Your task to perform on an android device: move a message to another label in the gmail app Image 0: 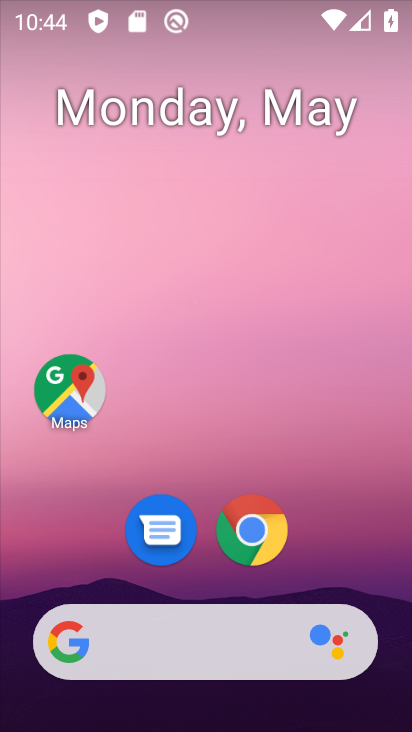
Step 0: drag from (336, 503) to (328, 4)
Your task to perform on an android device: move a message to another label in the gmail app Image 1: 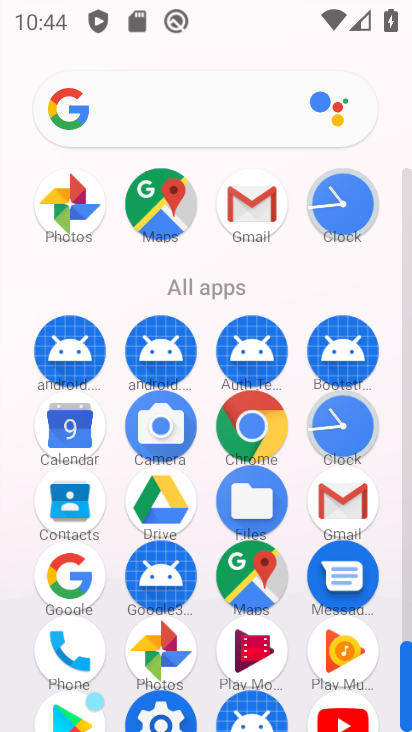
Step 1: drag from (11, 593) to (30, 239)
Your task to perform on an android device: move a message to another label in the gmail app Image 2: 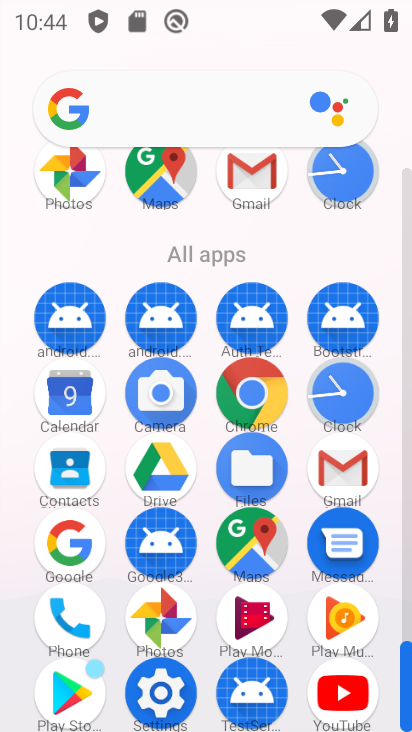
Step 2: drag from (12, 560) to (28, 220)
Your task to perform on an android device: move a message to another label in the gmail app Image 3: 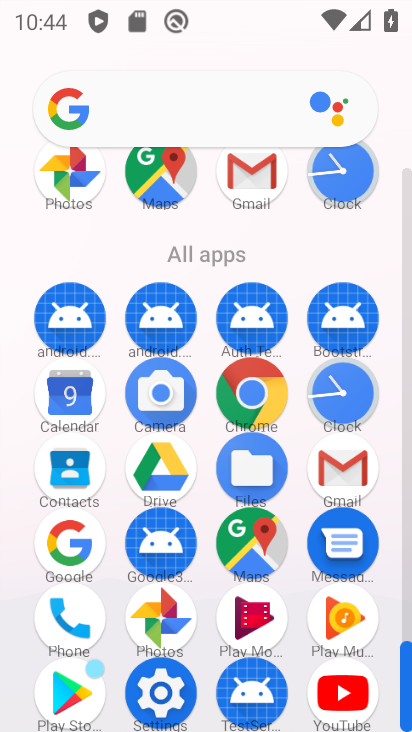
Step 3: click (341, 458)
Your task to perform on an android device: move a message to another label in the gmail app Image 4: 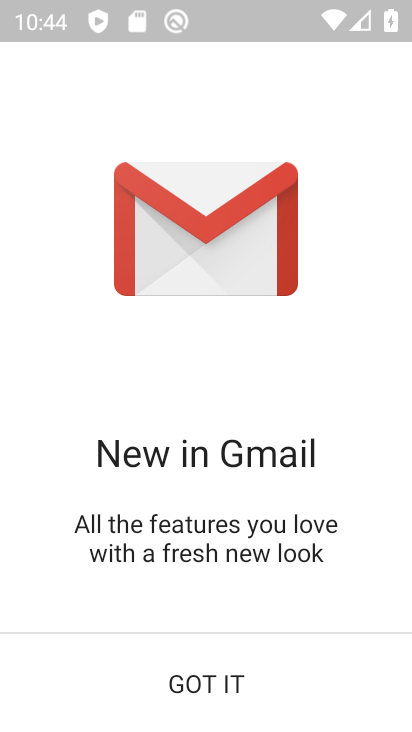
Step 4: click (204, 652)
Your task to perform on an android device: move a message to another label in the gmail app Image 5: 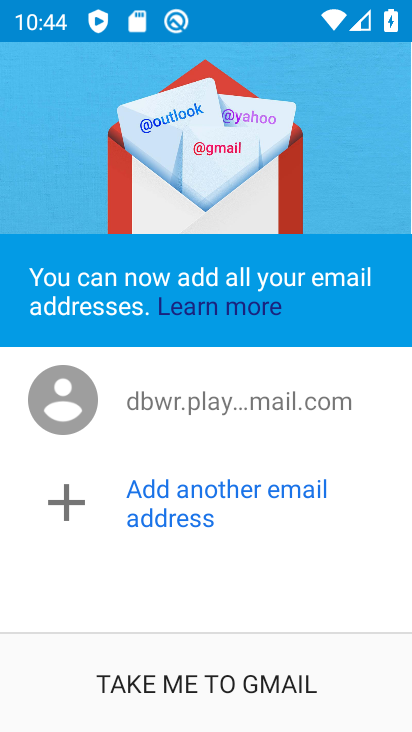
Step 5: click (209, 673)
Your task to perform on an android device: move a message to another label in the gmail app Image 6: 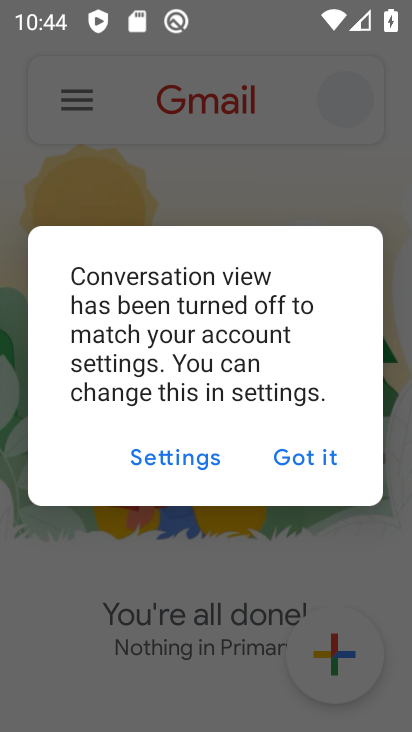
Step 6: click (296, 459)
Your task to perform on an android device: move a message to another label in the gmail app Image 7: 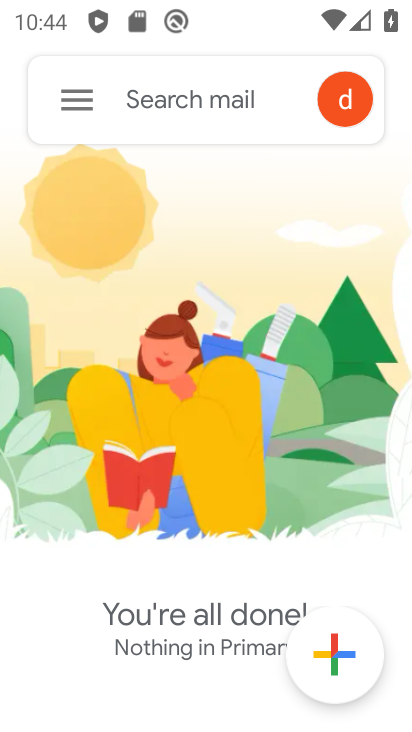
Step 7: click (87, 85)
Your task to perform on an android device: move a message to another label in the gmail app Image 8: 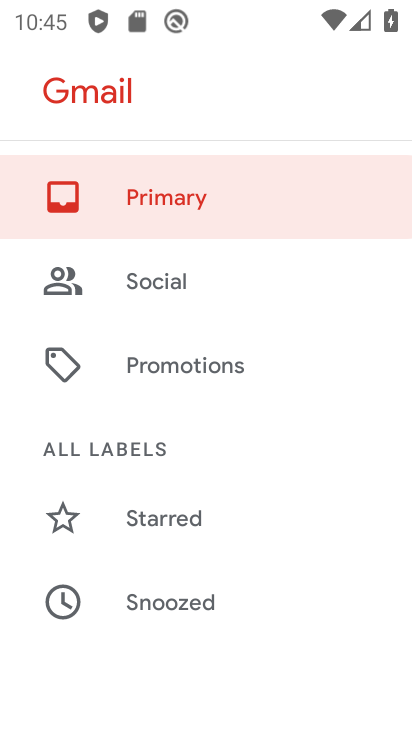
Step 8: drag from (280, 401) to (276, 199)
Your task to perform on an android device: move a message to another label in the gmail app Image 9: 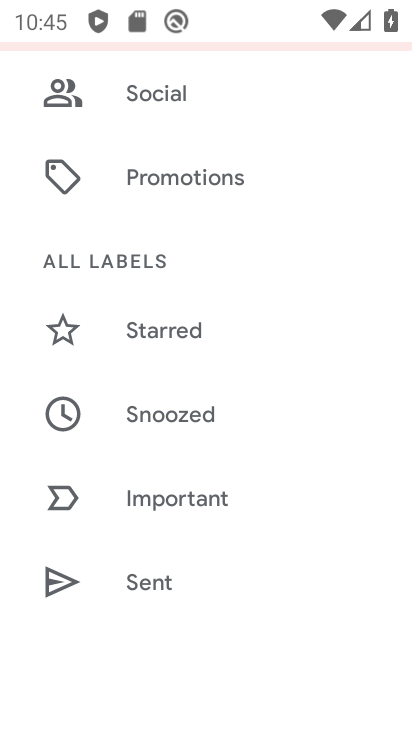
Step 9: drag from (261, 536) to (277, 162)
Your task to perform on an android device: move a message to another label in the gmail app Image 10: 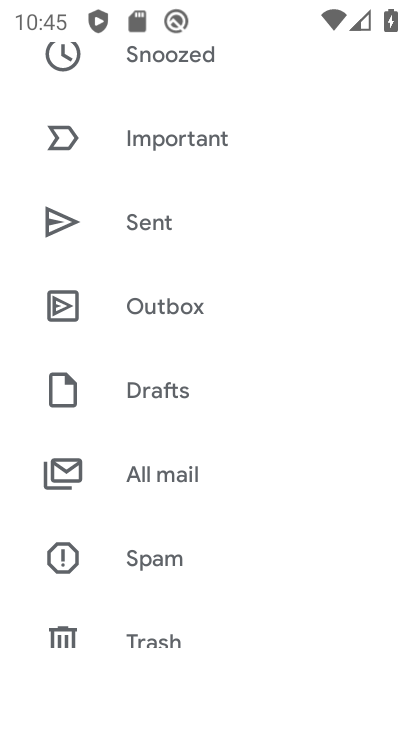
Step 10: drag from (278, 551) to (313, 195)
Your task to perform on an android device: move a message to another label in the gmail app Image 11: 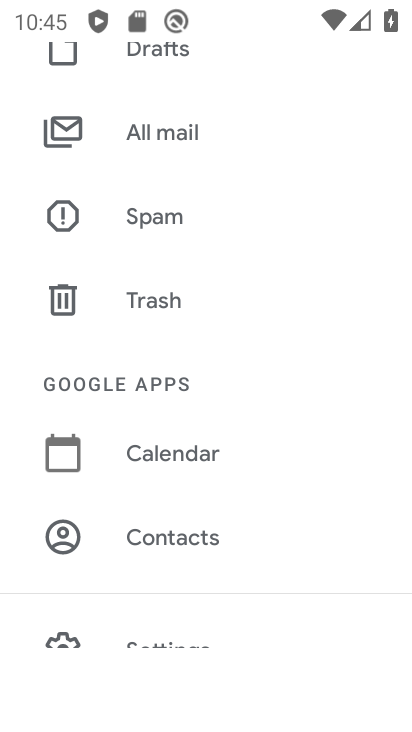
Step 11: drag from (185, 592) to (243, 196)
Your task to perform on an android device: move a message to another label in the gmail app Image 12: 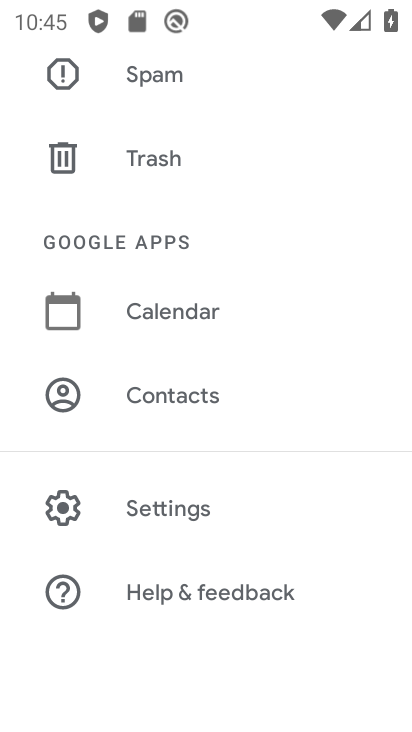
Step 12: drag from (242, 227) to (249, 579)
Your task to perform on an android device: move a message to another label in the gmail app Image 13: 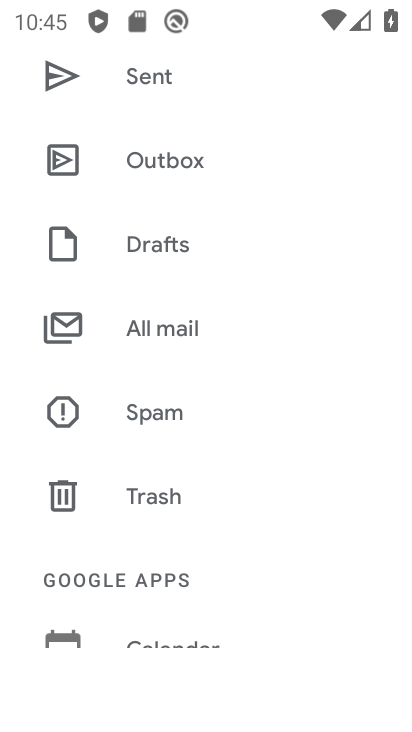
Step 13: drag from (224, 293) to (246, 587)
Your task to perform on an android device: move a message to another label in the gmail app Image 14: 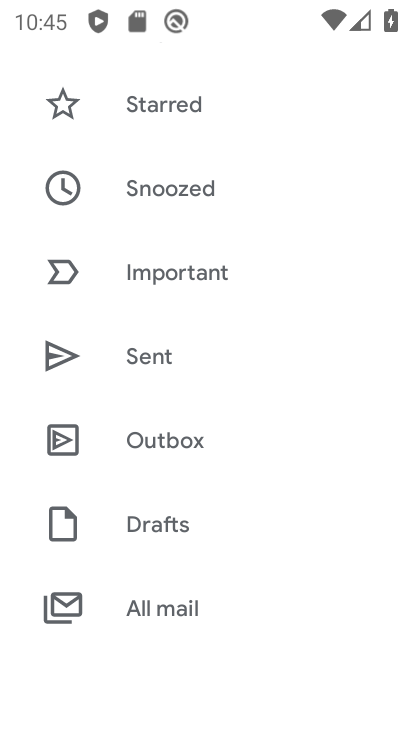
Step 14: click (300, 583)
Your task to perform on an android device: move a message to another label in the gmail app Image 15: 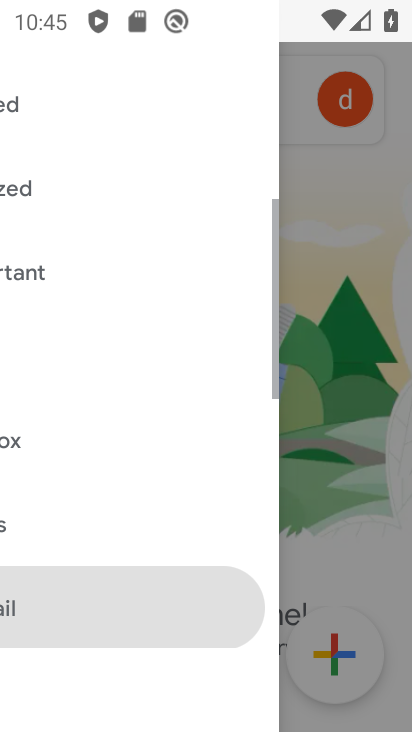
Step 15: drag from (256, 236) to (255, 518)
Your task to perform on an android device: move a message to another label in the gmail app Image 16: 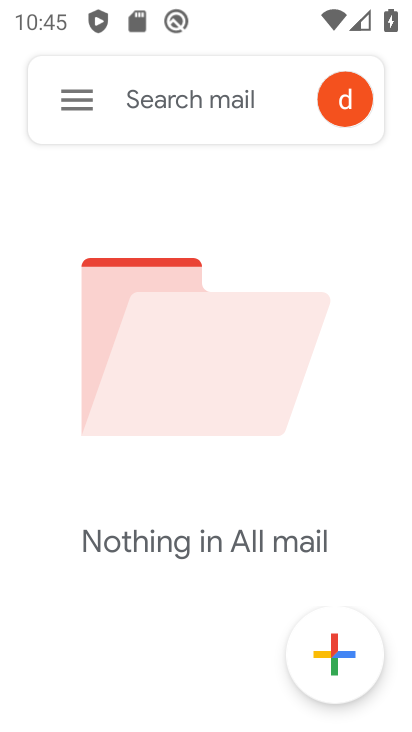
Step 16: click (81, 89)
Your task to perform on an android device: move a message to another label in the gmail app Image 17: 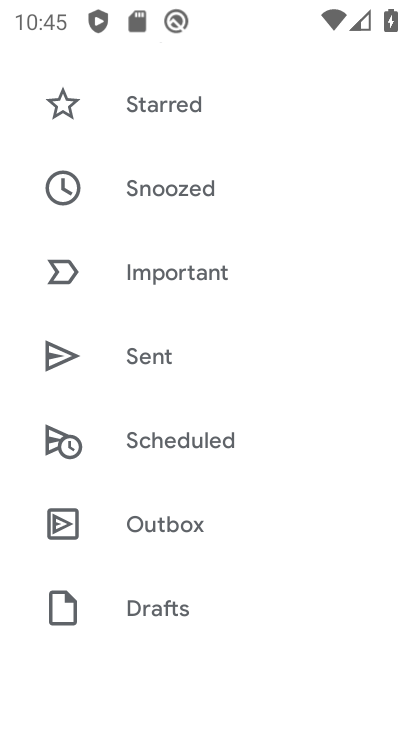
Step 17: task complete